Your task to perform on an android device: open a new tab in the chrome app Image 0: 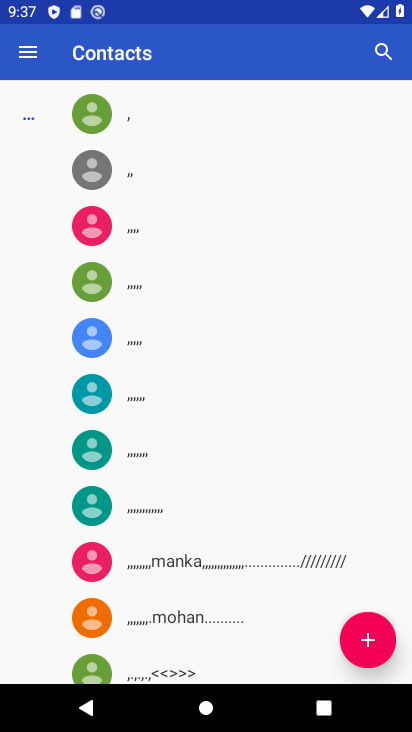
Step 0: press home button
Your task to perform on an android device: open a new tab in the chrome app Image 1: 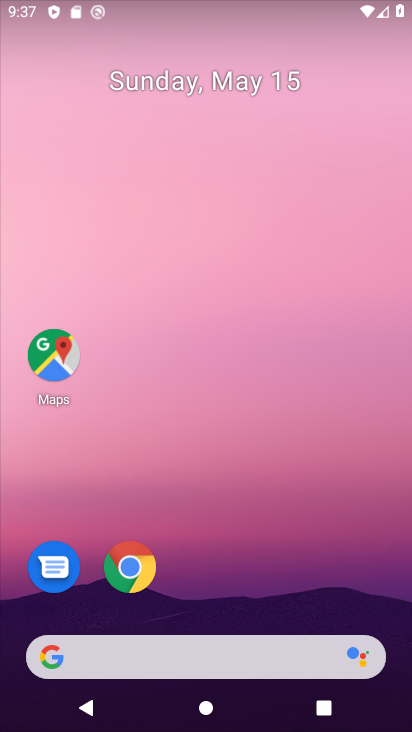
Step 1: click (126, 561)
Your task to perform on an android device: open a new tab in the chrome app Image 2: 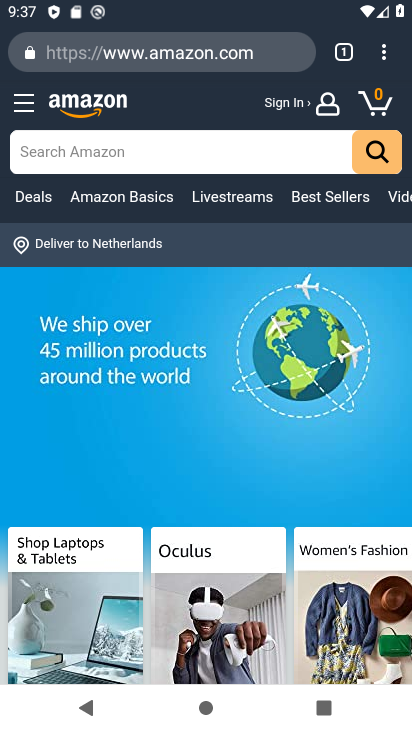
Step 2: click (346, 51)
Your task to perform on an android device: open a new tab in the chrome app Image 3: 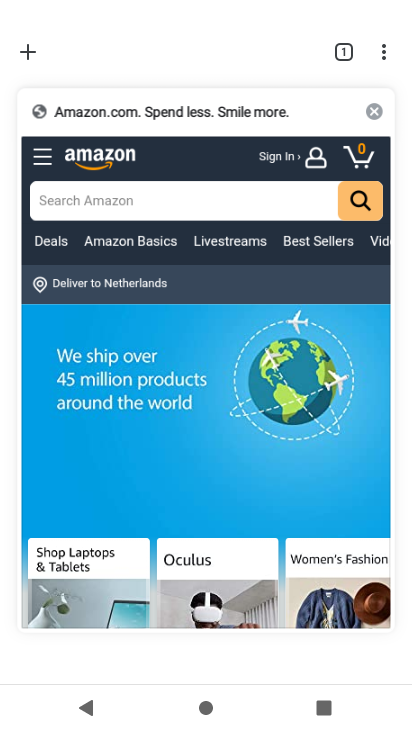
Step 3: click (31, 50)
Your task to perform on an android device: open a new tab in the chrome app Image 4: 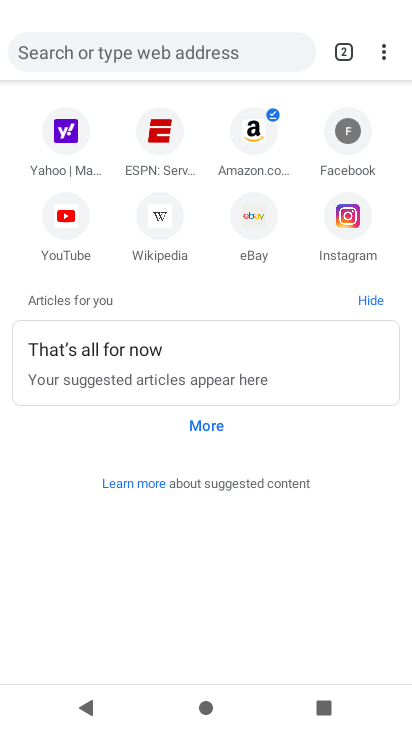
Step 4: task complete